Your task to perform on an android device: search for starred emails in the gmail app Image 0: 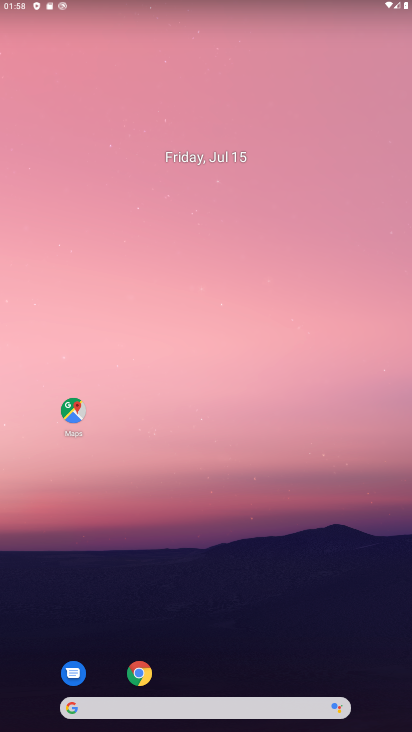
Step 0: drag from (255, 628) to (217, 36)
Your task to perform on an android device: search for starred emails in the gmail app Image 1: 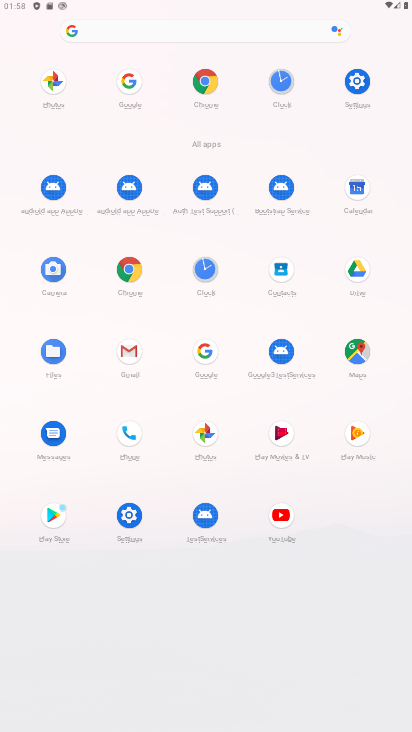
Step 1: click (120, 360)
Your task to perform on an android device: search for starred emails in the gmail app Image 2: 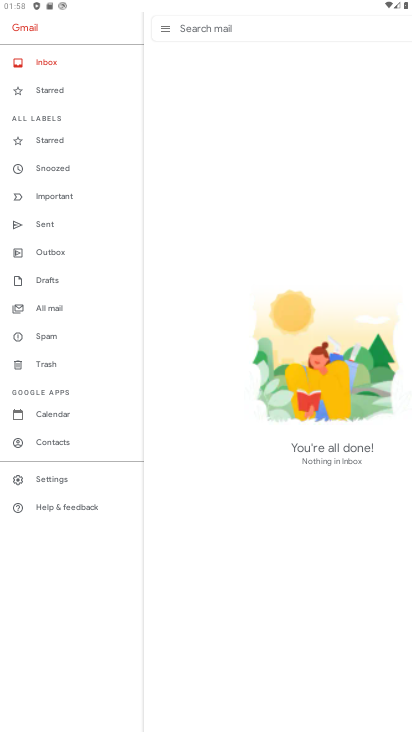
Step 2: click (66, 139)
Your task to perform on an android device: search for starred emails in the gmail app Image 3: 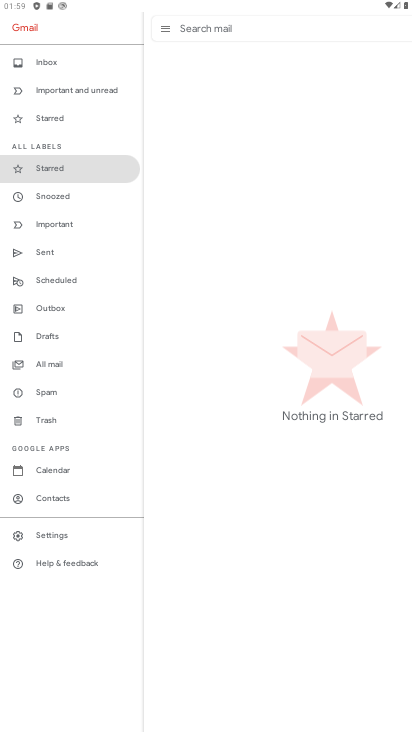
Step 3: task complete